Your task to perform on an android device: turn off wifi Image 0: 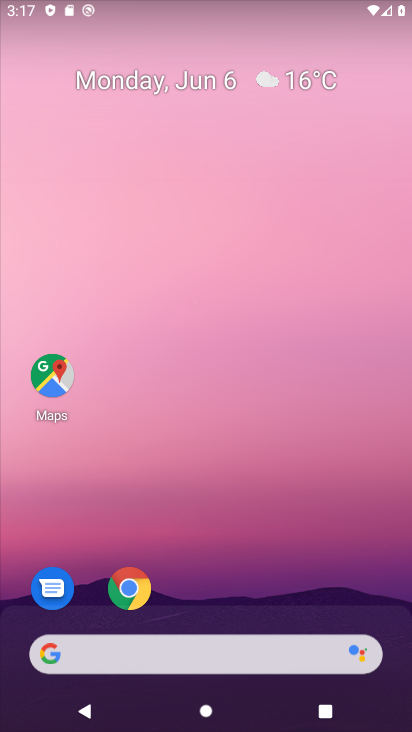
Step 0: drag from (250, 613) to (286, 54)
Your task to perform on an android device: turn off wifi Image 1: 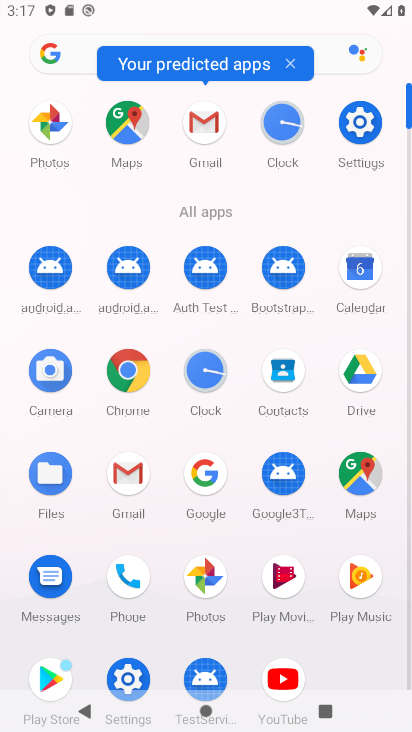
Step 1: click (355, 124)
Your task to perform on an android device: turn off wifi Image 2: 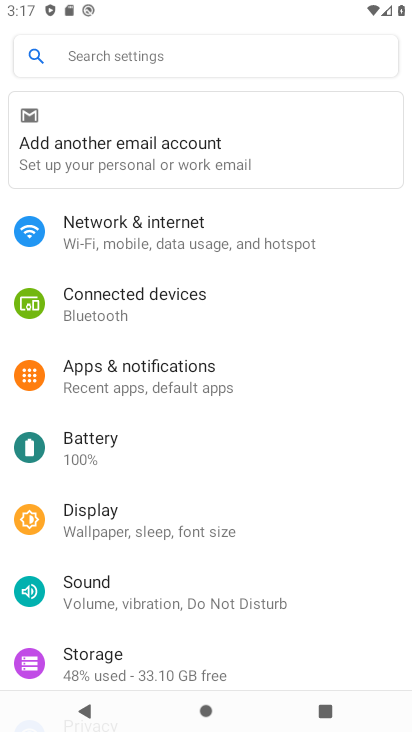
Step 2: click (271, 239)
Your task to perform on an android device: turn off wifi Image 3: 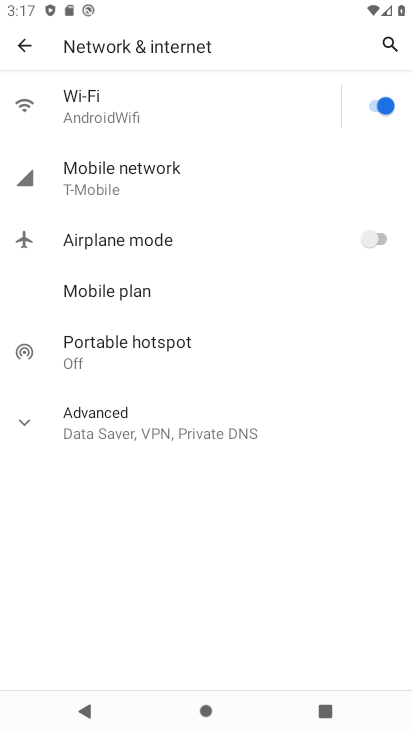
Step 3: click (388, 110)
Your task to perform on an android device: turn off wifi Image 4: 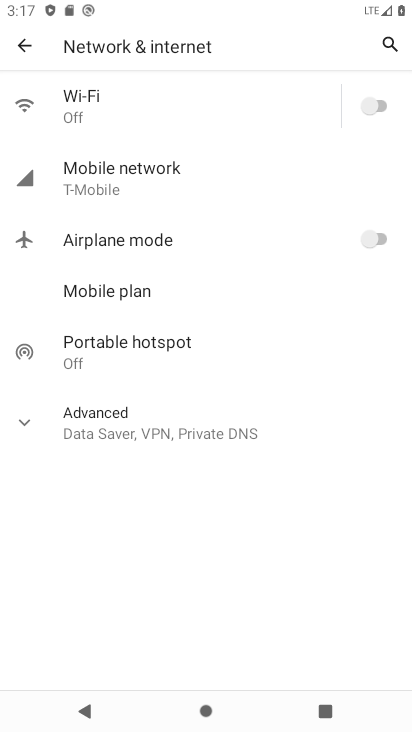
Step 4: task complete